Your task to perform on an android device: What's the weather going to be tomorrow? Image 0: 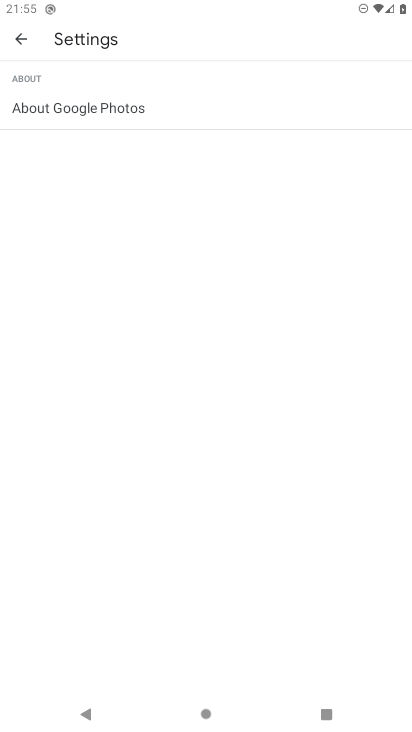
Step 0: press home button
Your task to perform on an android device: What's the weather going to be tomorrow? Image 1: 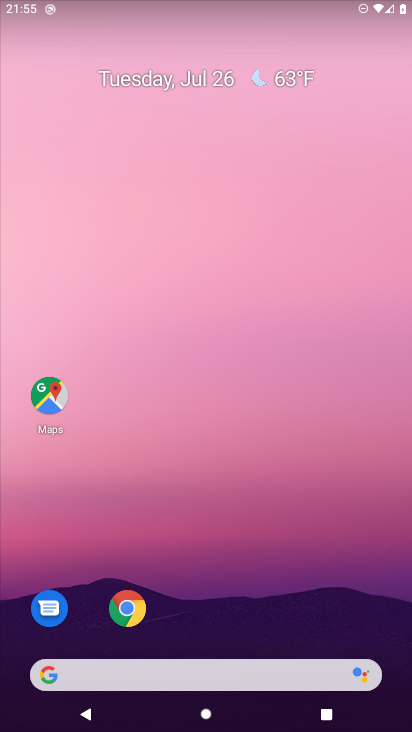
Step 1: click (117, 677)
Your task to perform on an android device: What's the weather going to be tomorrow? Image 2: 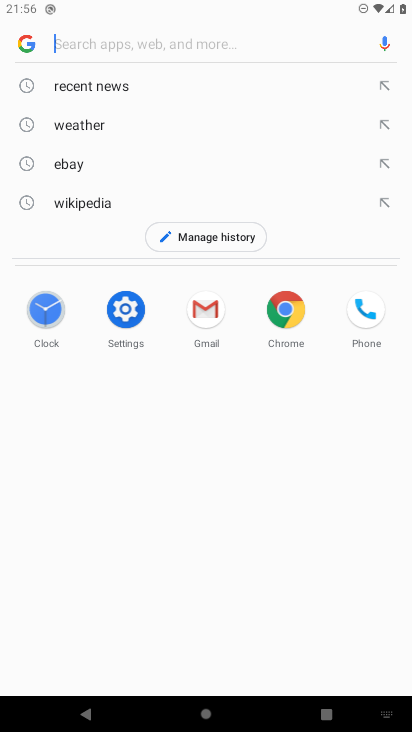
Step 2: type "What's the weather going to be tomorrow?"
Your task to perform on an android device: What's the weather going to be tomorrow? Image 3: 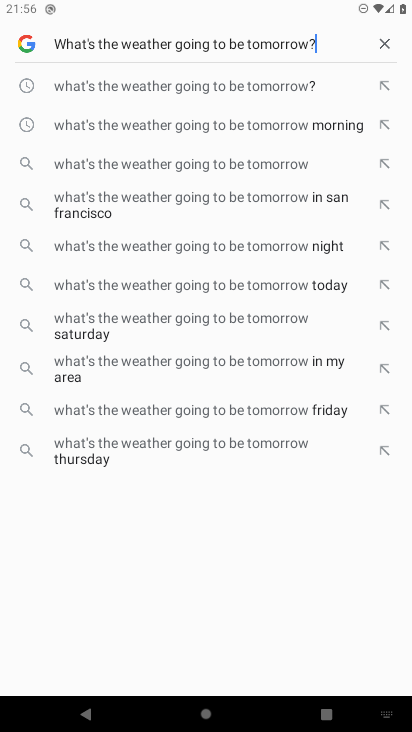
Step 3: type ""
Your task to perform on an android device: What's the weather going to be tomorrow? Image 4: 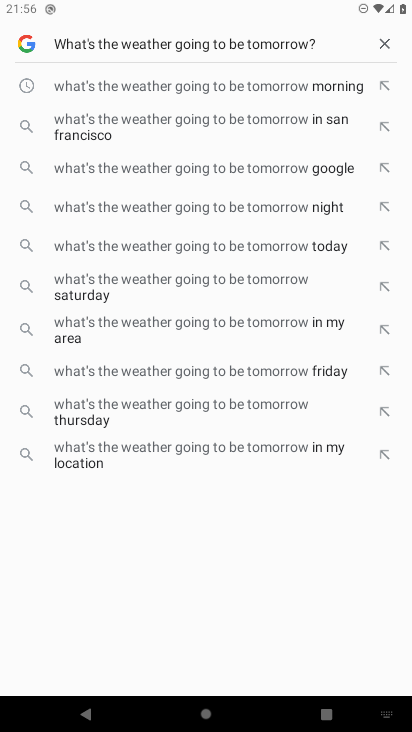
Step 4: type ""
Your task to perform on an android device: What's the weather going to be tomorrow? Image 5: 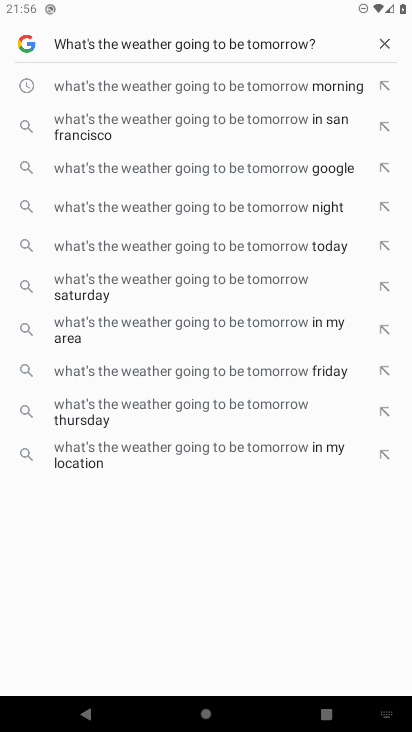
Step 5: type ""
Your task to perform on an android device: What's the weather going to be tomorrow? Image 6: 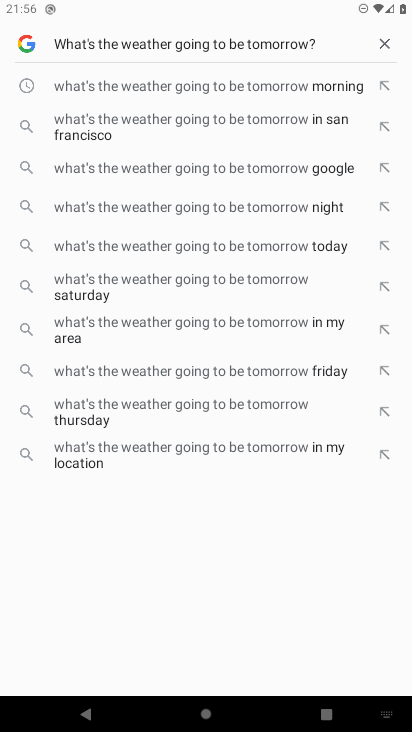
Step 6: task complete